Your task to perform on an android device: Search for dell xps on target, select the first entry, add it to the cart, then select checkout. Image 0: 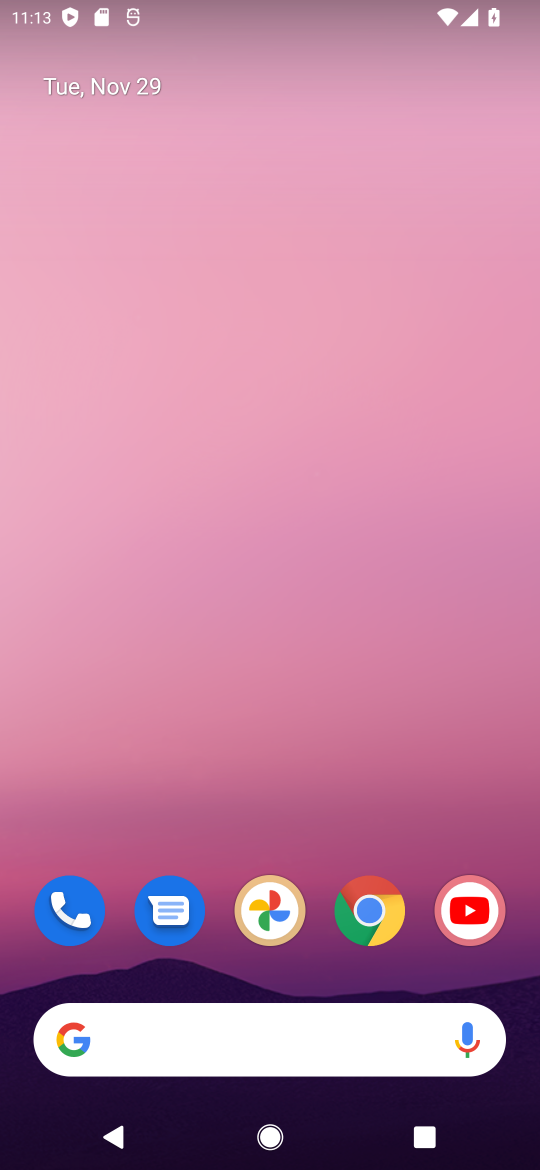
Step 0: click (388, 925)
Your task to perform on an android device: Search for dell xps on target, select the first entry, add it to the cart, then select checkout. Image 1: 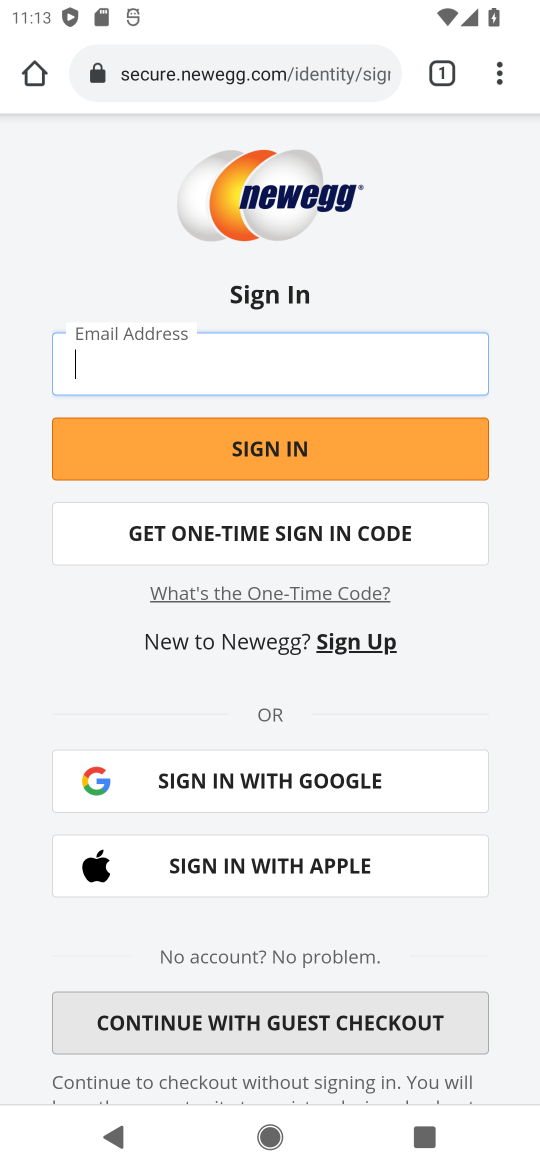
Step 1: click (231, 76)
Your task to perform on an android device: Search for dell xps on target, select the first entry, add it to the cart, then select checkout. Image 2: 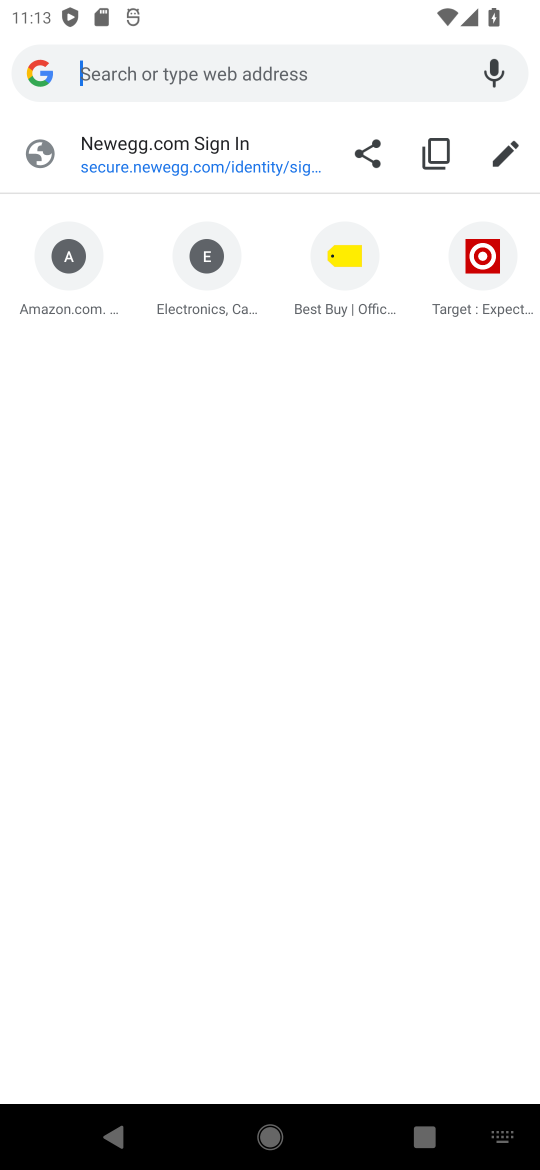
Step 2: click (473, 257)
Your task to perform on an android device: Search for dell xps on target, select the first entry, add it to the cart, then select checkout. Image 3: 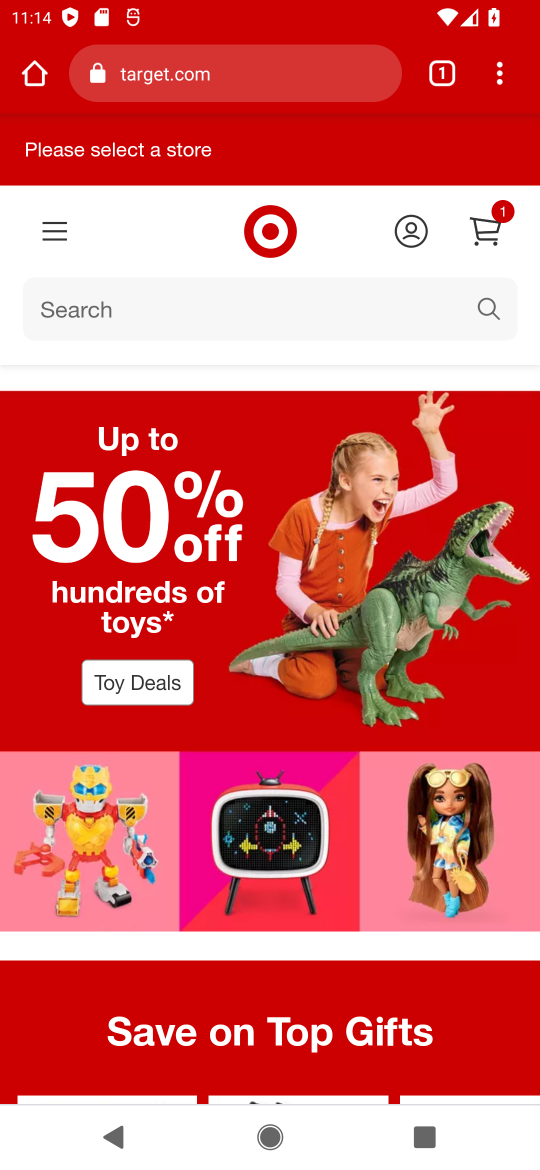
Step 3: click (100, 310)
Your task to perform on an android device: Search for dell xps on target, select the first entry, add it to the cart, then select checkout. Image 4: 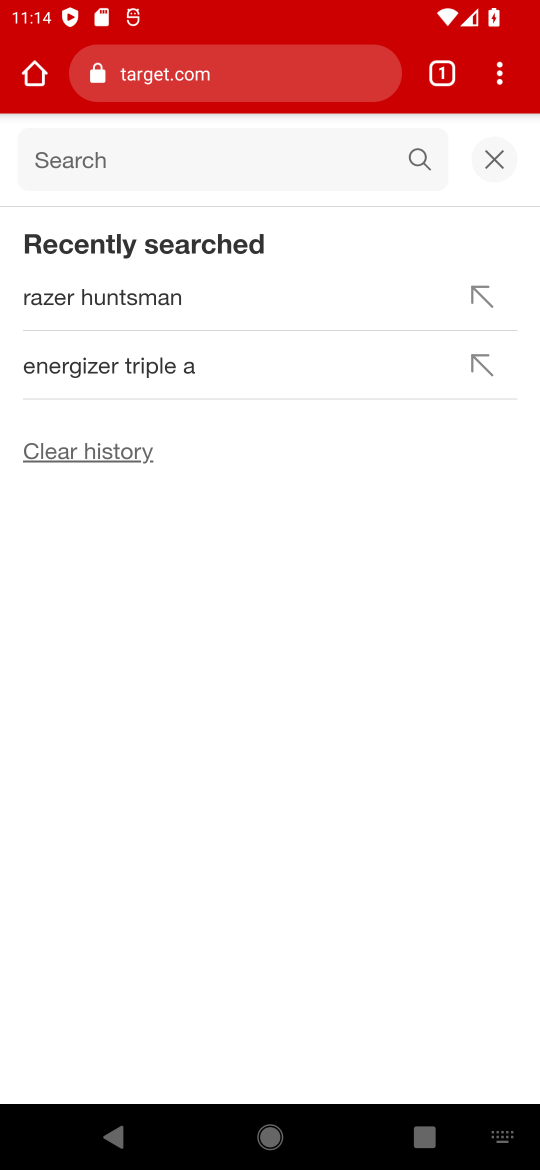
Step 4: type "dell xps"
Your task to perform on an android device: Search for dell xps on target, select the first entry, add it to the cart, then select checkout. Image 5: 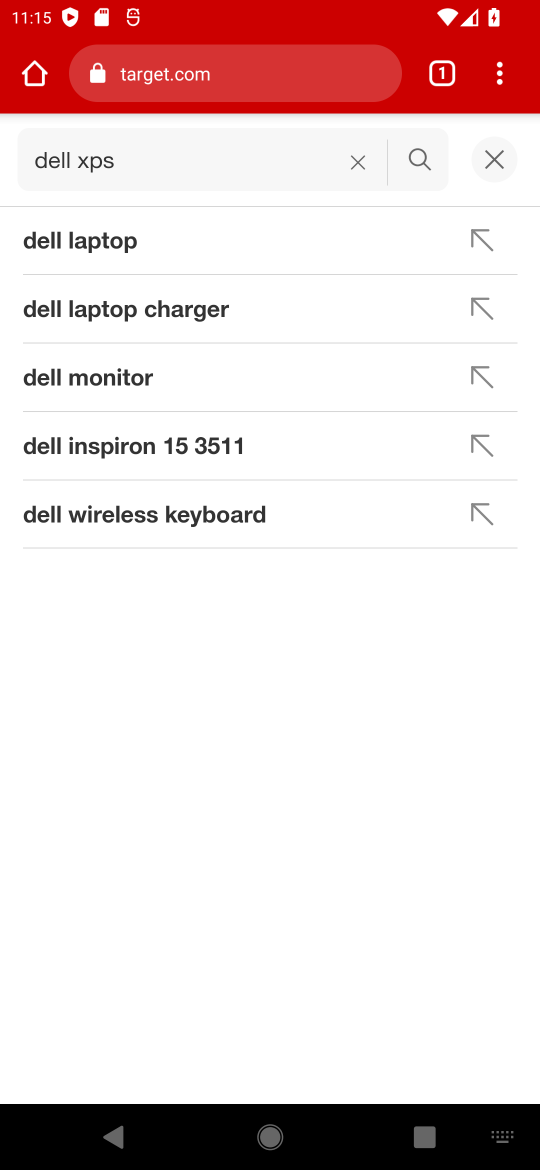
Step 5: click (413, 146)
Your task to perform on an android device: Search for dell xps on target, select the first entry, add it to the cart, then select checkout. Image 6: 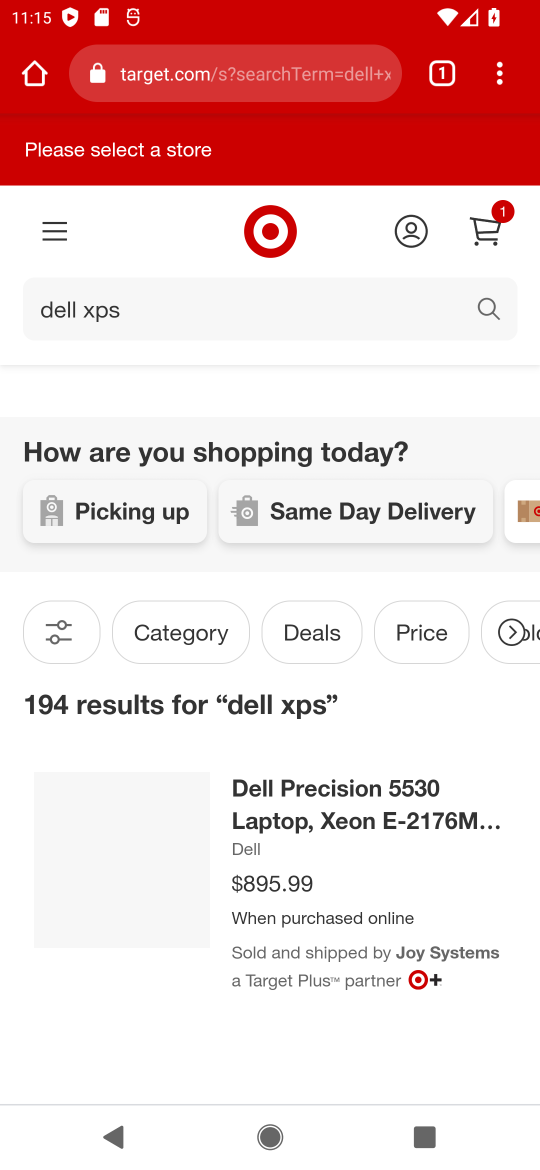
Step 6: drag from (253, 731) to (259, 251)
Your task to perform on an android device: Search for dell xps on target, select the first entry, add it to the cart, then select checkout. Image 7: 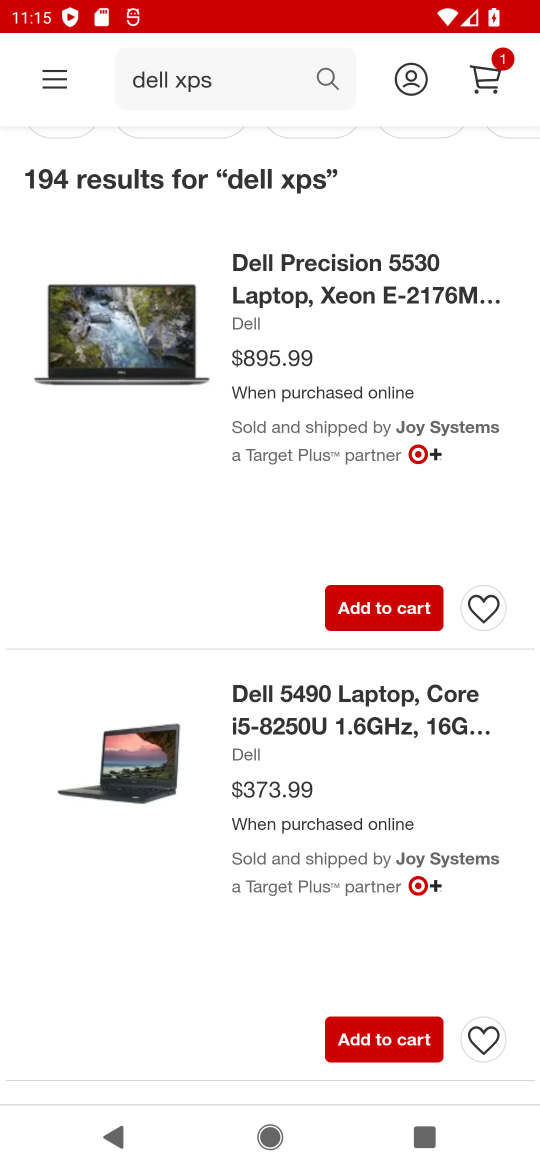
Step 7: drag from (251, 710) to (262, 508)
Your task to perform on an android device: Search for dell xps on target, select the first entry, add it to the cart, then select checkout. Image 8: 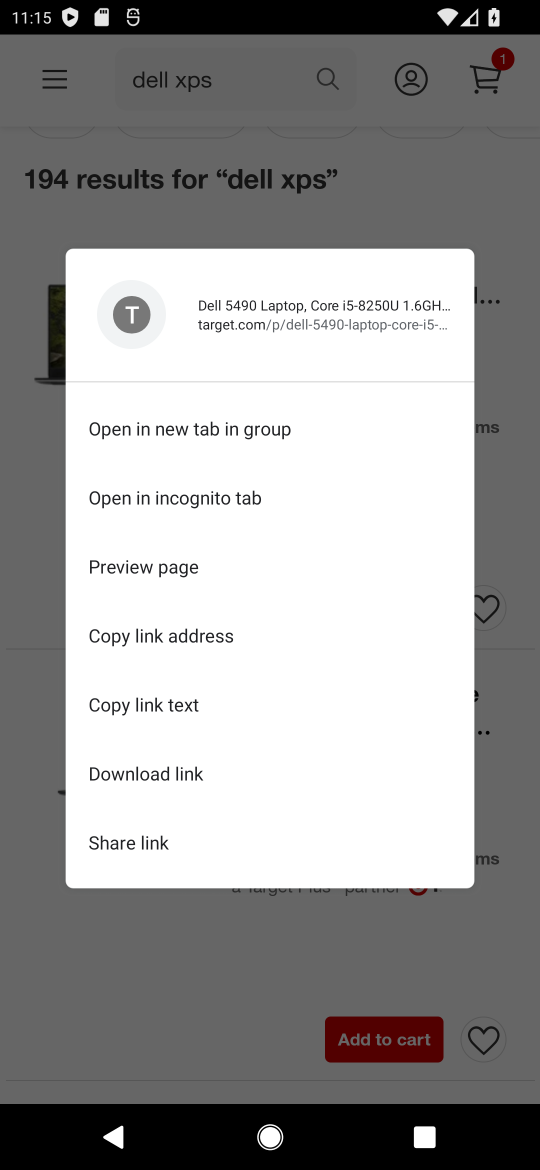
Step 8: click (502, 863)
Your task to perform on an android device: Search for dell xps on target, select the first entry, add it to the cart, then select checkout. Image 9: 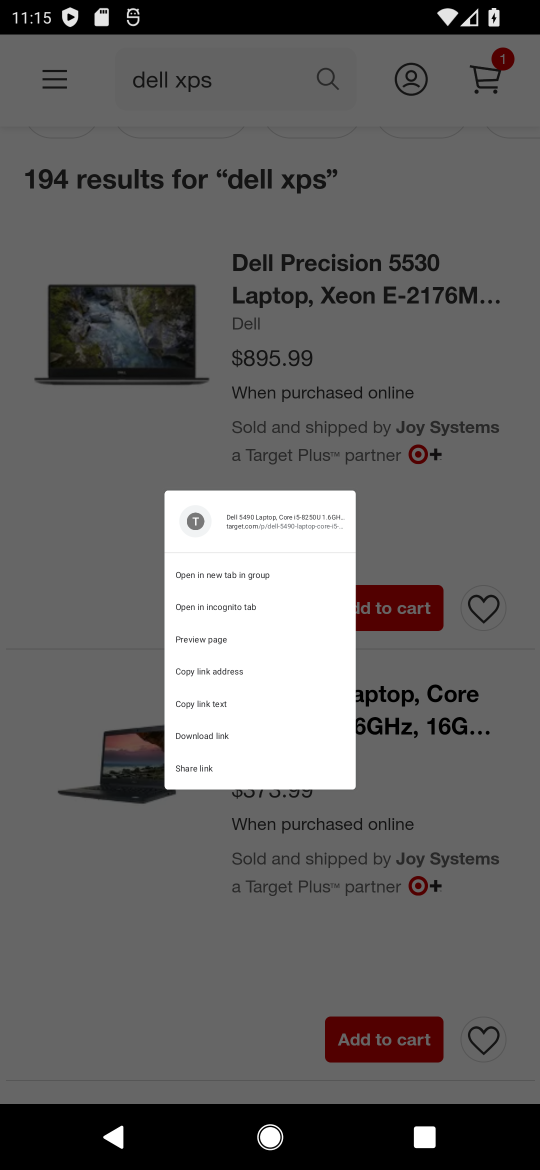
Step 9: task complete